Your task to perform on an android device: set an alarm Image 0: 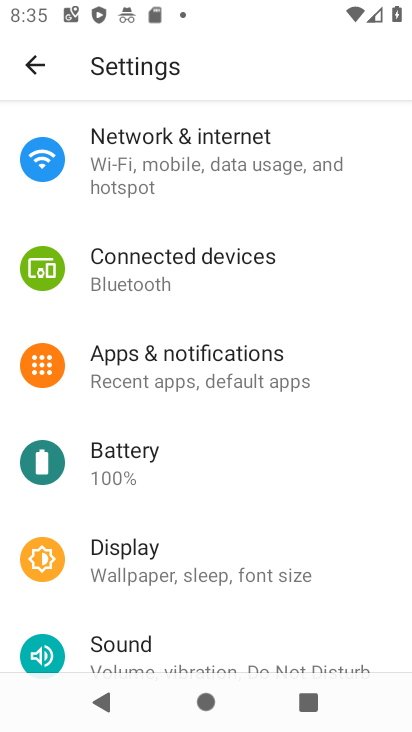
Step 0: press home button
Your task to perform on an android device: set an alarm Image 1: 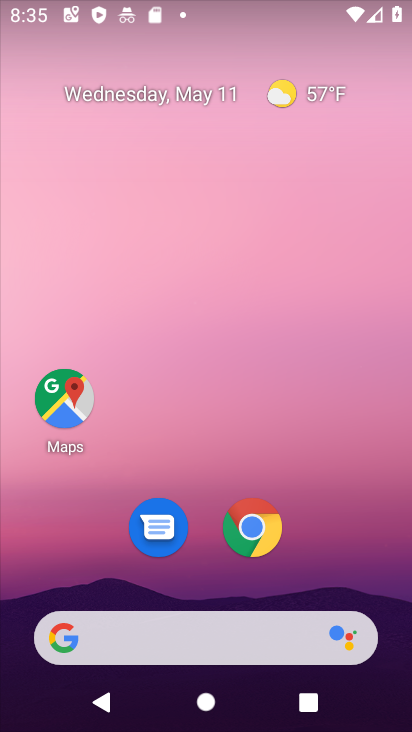
Step 1: drag from (337, 540) to (281, 13)
Your task to perform on an android device: set an alarm Image 2: 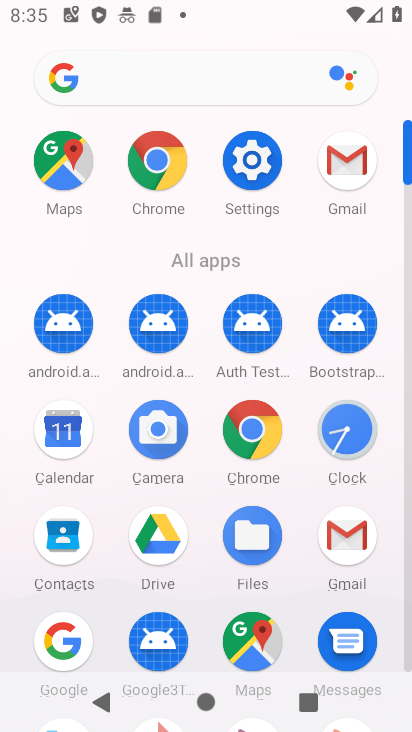
Step 2: click (352, 431)
Your task to perform on an android device: set an alarm Image 3: 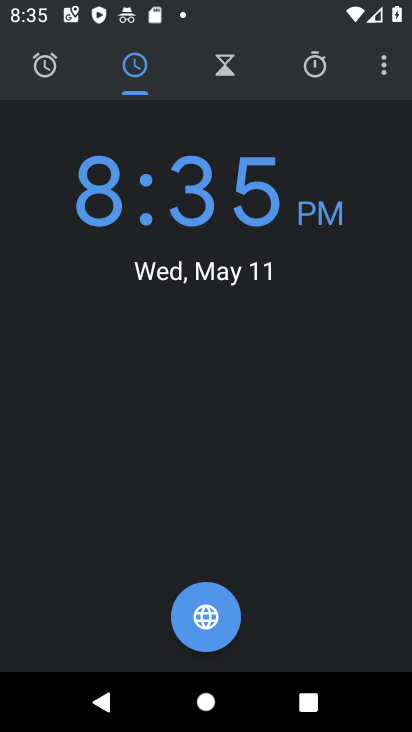
Step 3: click (43, 64)
Your task to perform on an android device: set an alarm Image 4: 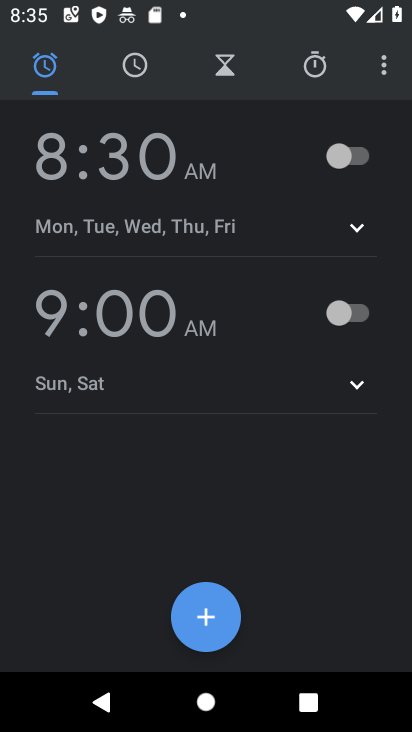
Step 4: click (206, 608)
Your task to perform on an android device: set an alarm Image 5: 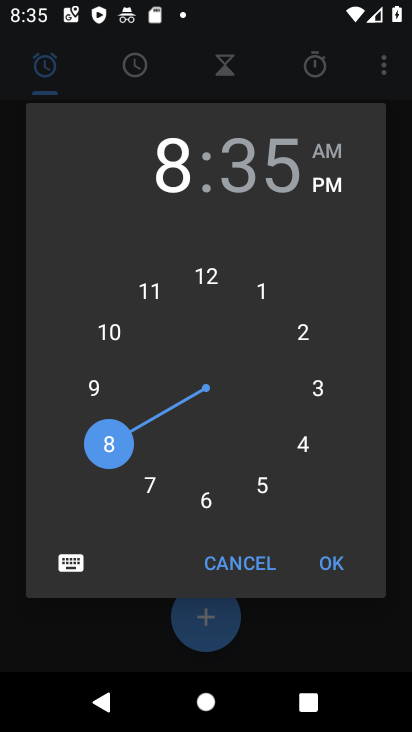
Step 5: click (313, 451)
Your task to perform on an android device: set an alarm Image 6: 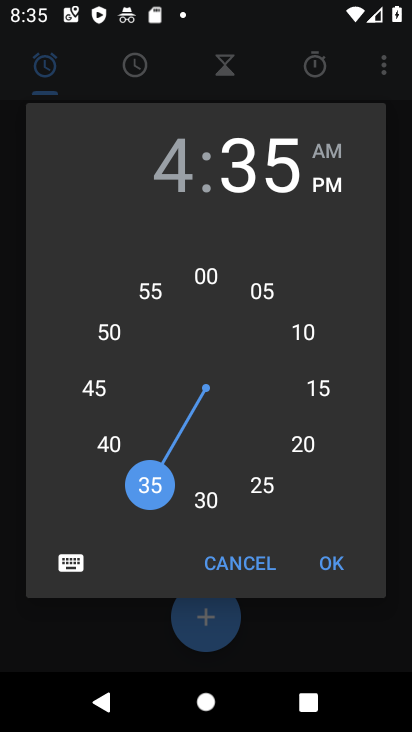
Step 6: click (228, 277)
Your task to perform on an android device: set an alarm Image 7: 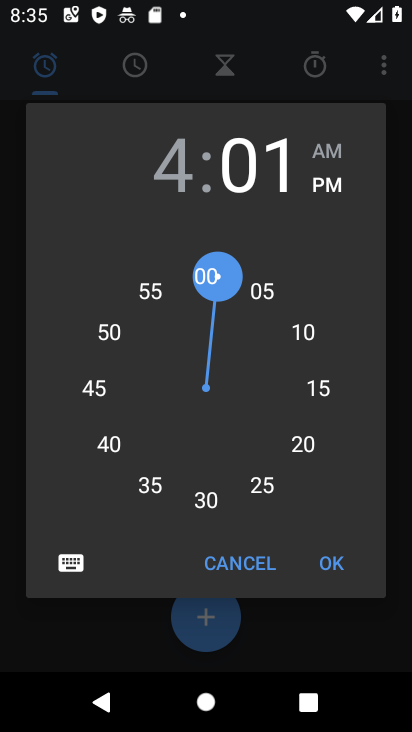
Step 7: click (320, 558)
Your task to perform on an android device: set an alarm Image 8: 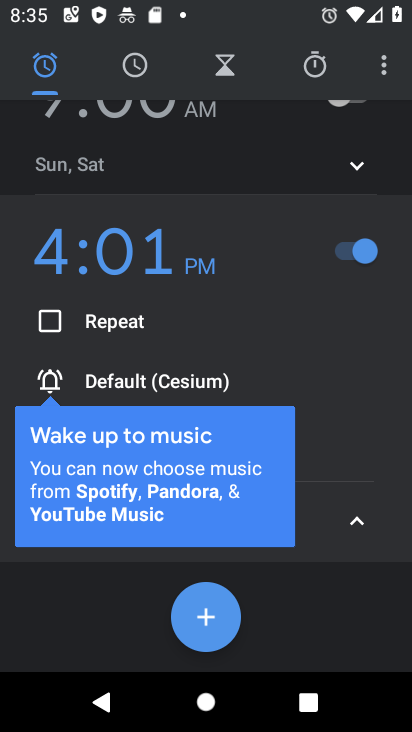
Step 8: task complete